Your task to perform on an android device: What's the weather? Image 0: 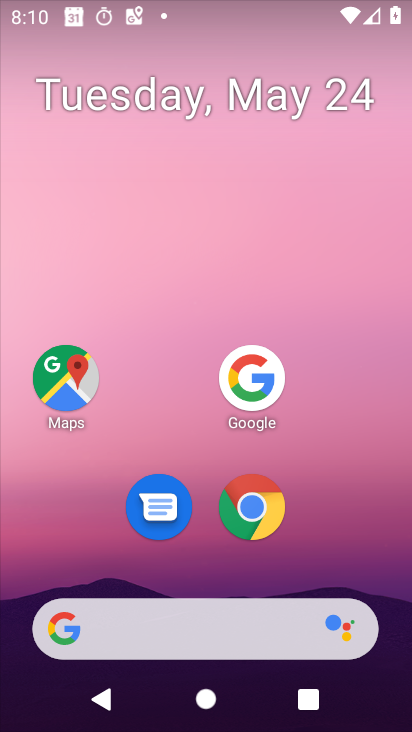
Step 0: press home button
Your task to perform on an android device: What's the weather? Image 1: 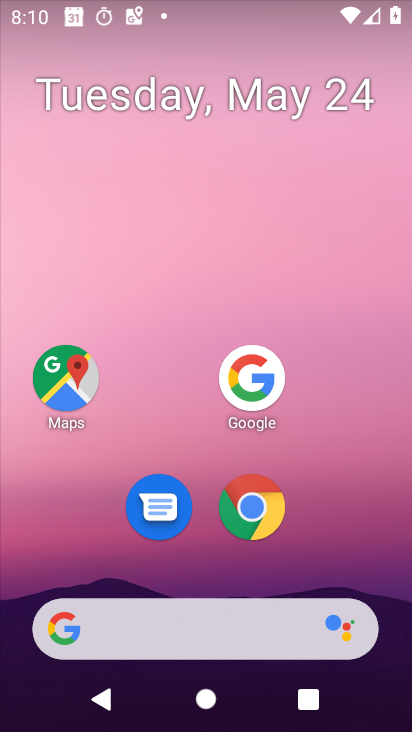
Step 1: click (73, 632)
Your task to perform on an android device: What's the weather? Image 2: 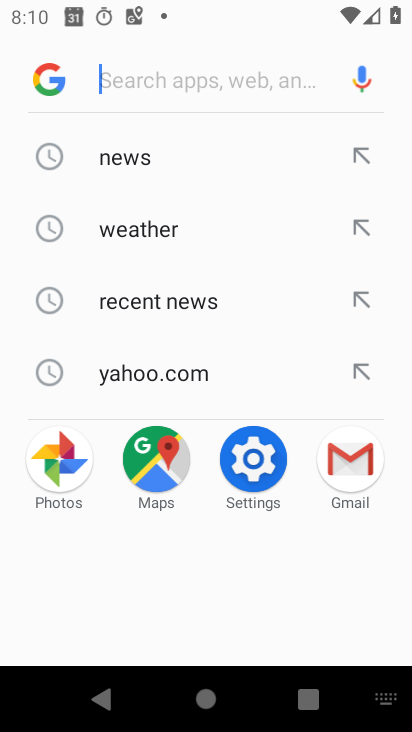
Step 2: click (117, 223)
Your task to perform on an android device: What's the weather? Image 3: 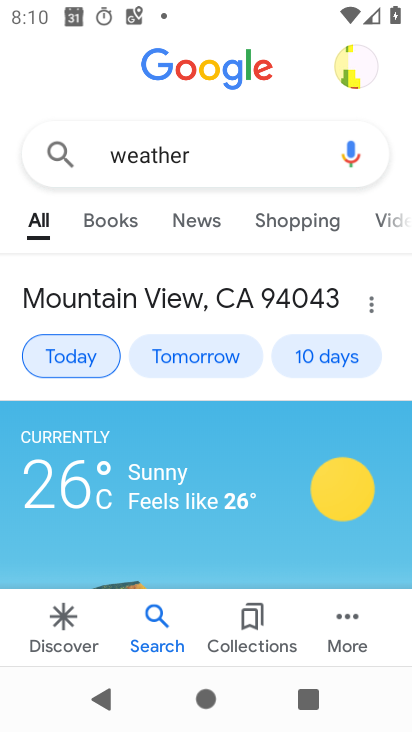
Step 3: task complete